Your task to perform on an android device: delete a single message in the gmail app Image 0: 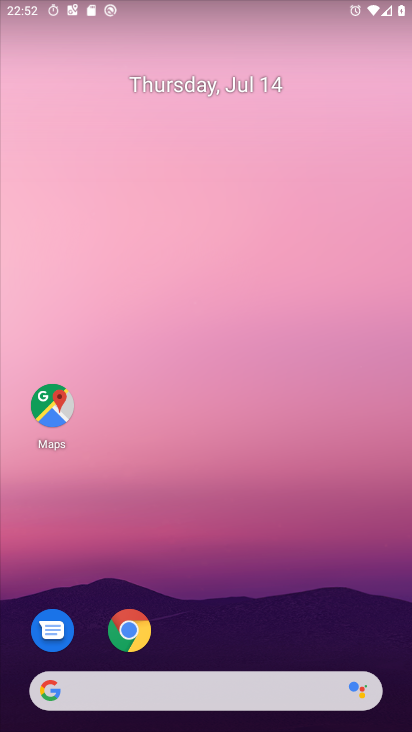
Step 0: drag from (187, 641) to (202, 130)
Your task to perform on an android device: delete a single message in the gmail app Image 1: 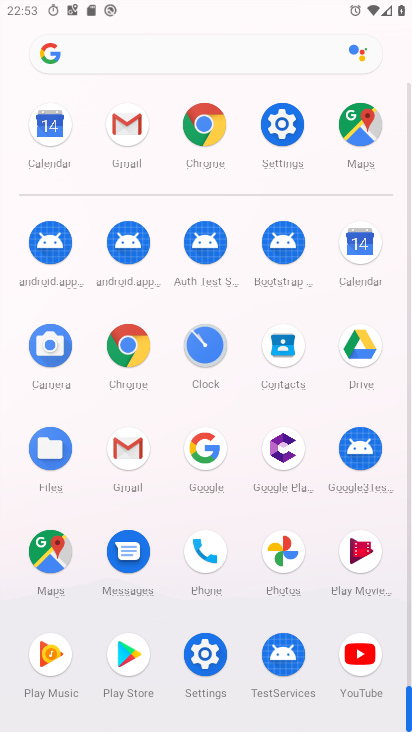
Step 1: click (132, 460)
Your task to perform on an android device: delete a single message in the gmail app Image 2: 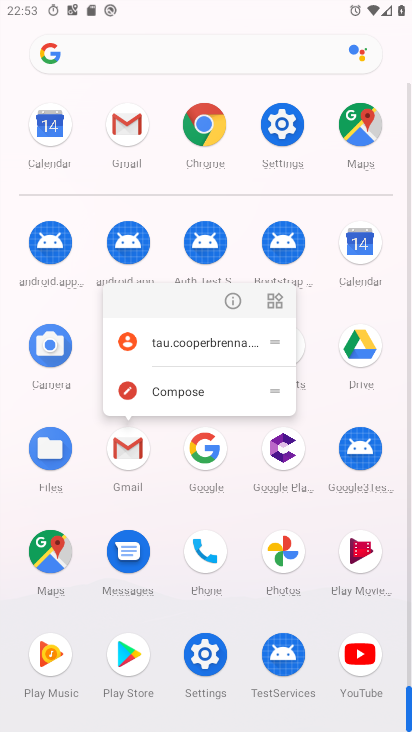
Step 2: click (230, 287)
Your task to perform on an android device: delete a single message in the gmail app Image 3: 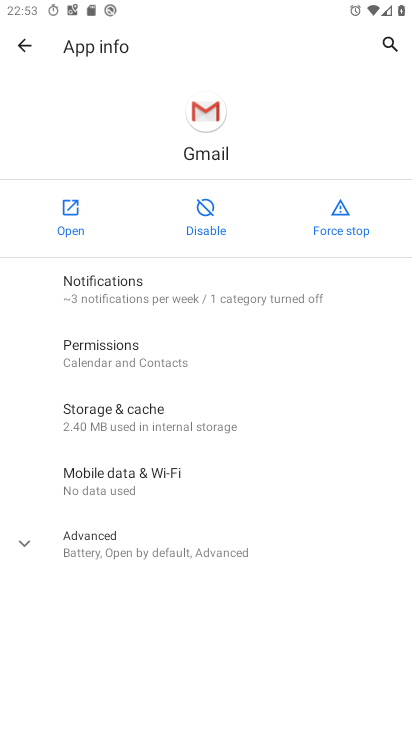
Step 3: click (86, 194)
Your task to perform on an android device: delete a single message in the gmail app Image 4: 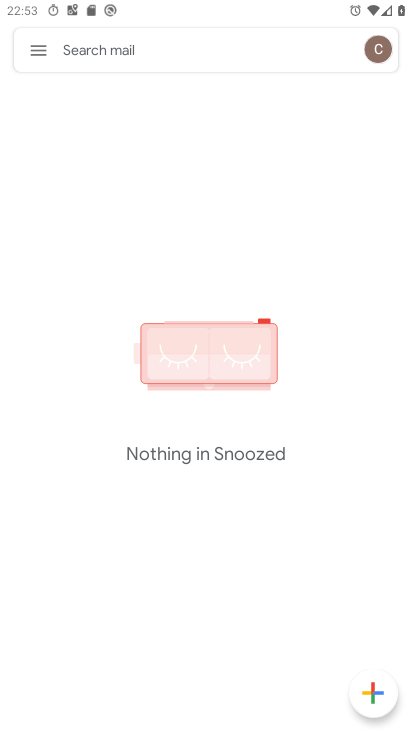
Step 4: task complete